Your task to perform on an android device: Open calendar and show me the fourth week of next month Image 0: 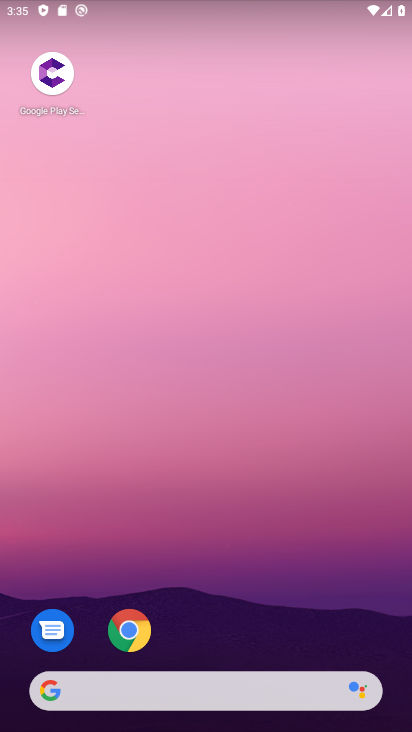
Step 0: drag from (312, 579) to (2, 472)
Your task to perform on an android device: Open calendar and show me the fourth week of next month Image 1: 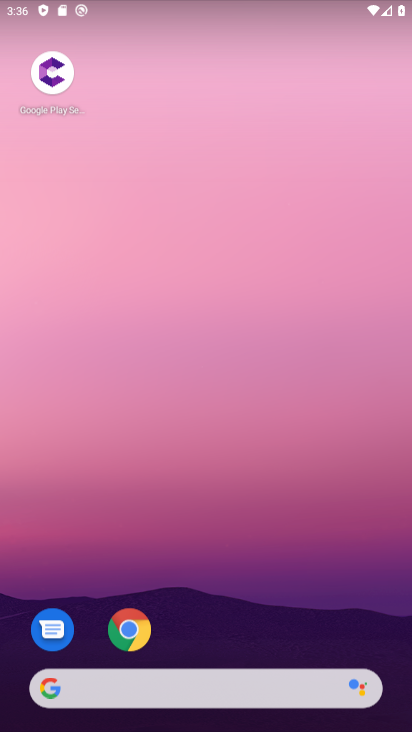
Step 1: drag from (15, 540) to (25, 25)
Your task to perform on an android device: Open calendar and show me the fourth week of next month Image 2: 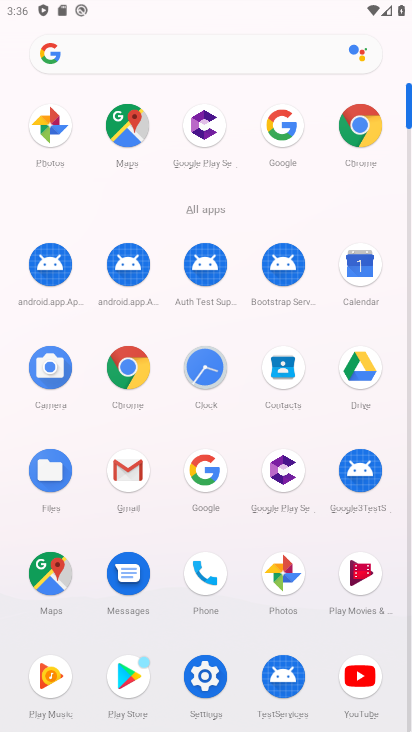
Step 2: click (364, 252)
Your task to perform on an android device: Open calendar and show me the fourth week of next month Image 3: 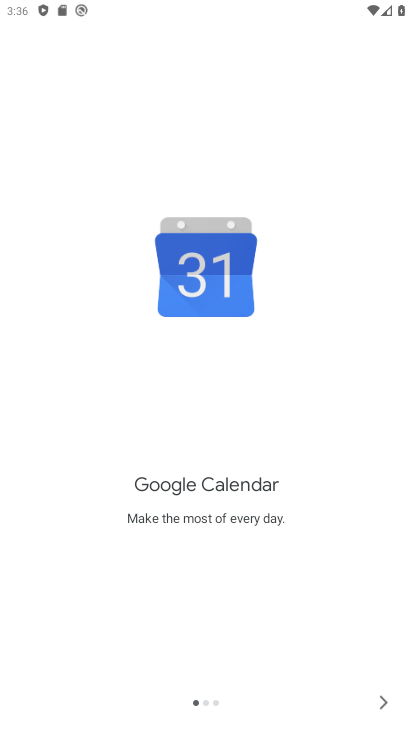
Step 3: click (389, 709)
Your task to perform on an android device: Open calendar and show me the fourth week of next month Image 4: 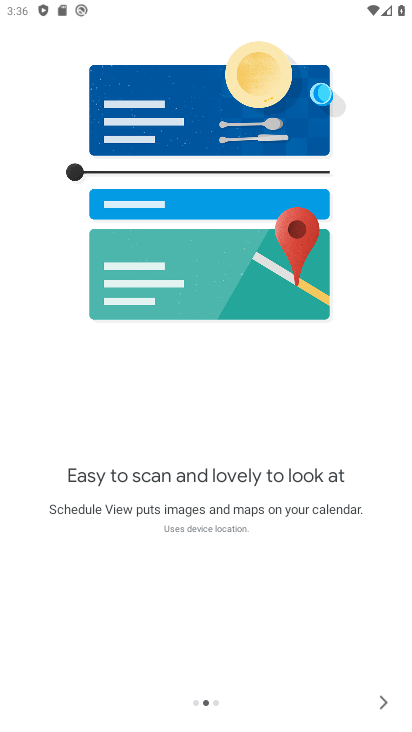
Step 4: click (385, 702)
Your task to perform on an android device: Open calendar and show me the fourth week of next month Image 5: 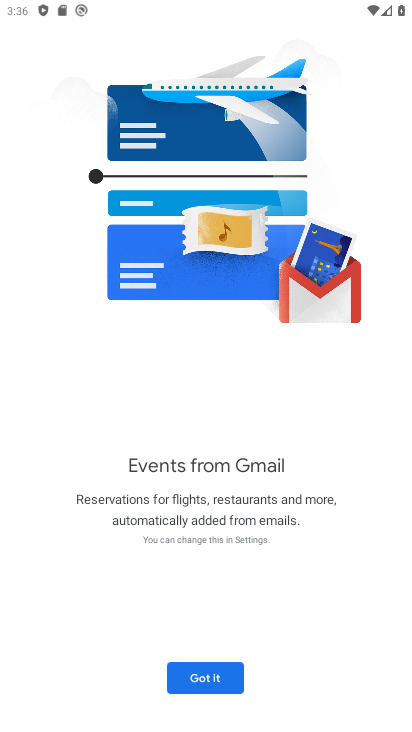
Step 5: click (208, 664)
Your task to perform on an android device: Open calendar and show me the fourth week of next month Image 6: 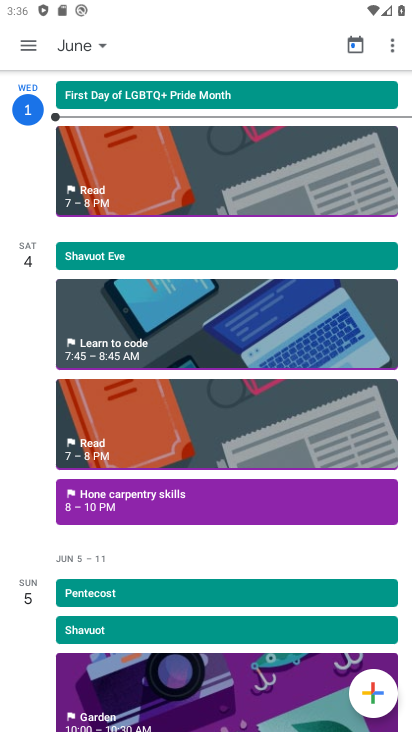
Step 6: click (62, 40)
Your task to perform on an android device: Open calendar and show me the fourth week of next month Image 7: 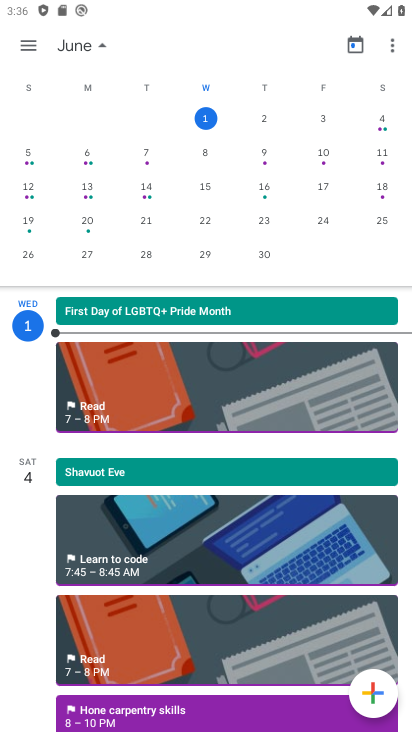
Step 7: click (353, 37)
Your task to perform on an android device: Open calendar and show me the fourth week of next month Image 8: 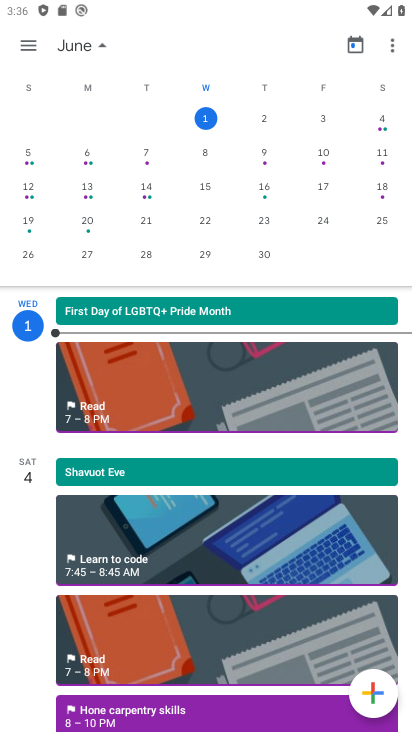
Step 8: drag from (385, 158) to (0, 125)
Your task to perform on an android device: Open calendar and show me the fourth week of next month Image 9: 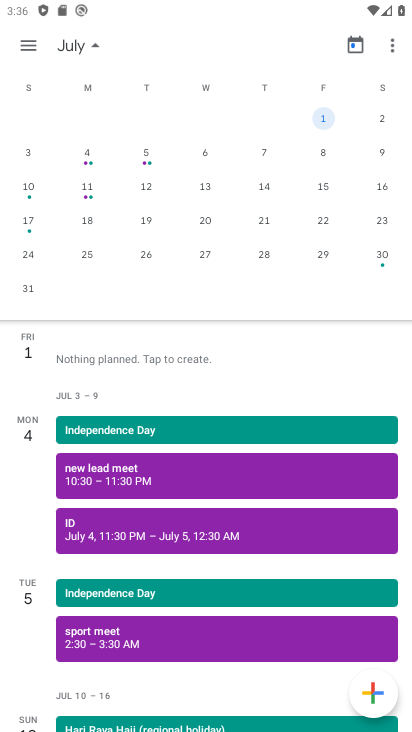
Step 9: click (27, 228)
Your task to perform on an android device: Open calendar and show me the fourth week of next month Image 10: 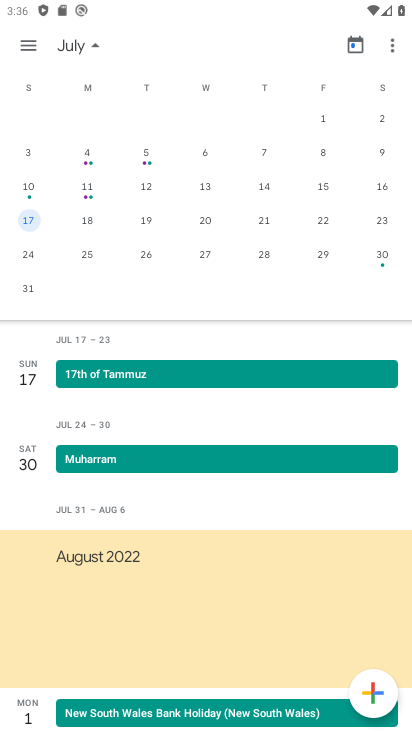
Step 10: click (25, 46)
Your task to perform on an android device: Open calendar and show me the fourth week of next month Image 11: 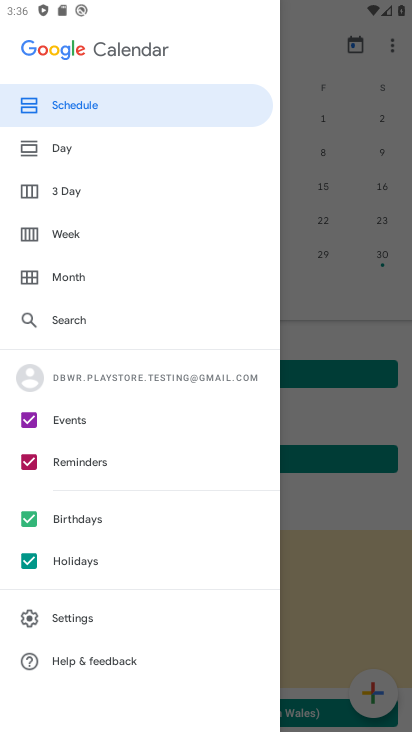
Step 11: click (80, 230)
Your task to perform on an android device: Open calendar and show me the fourth week of next month Image 12: 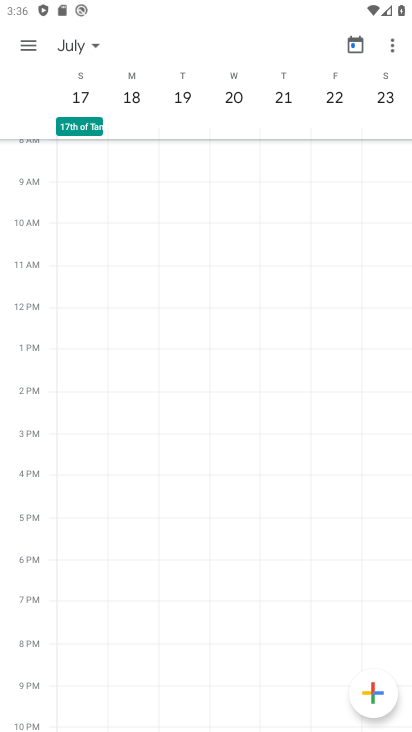
Step 12: task complete